Your task to perform on an android device: turn smart compose on in the gmail app Image 0: 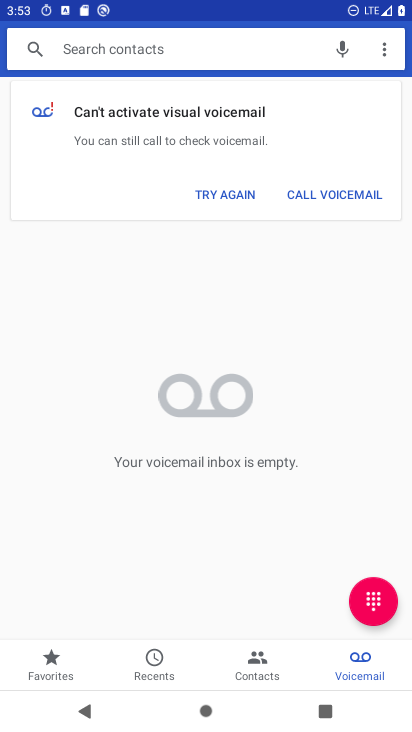
Step 0: press home button
Your task to perform on an android device: turn smart compose on in the gmail app Image 1: 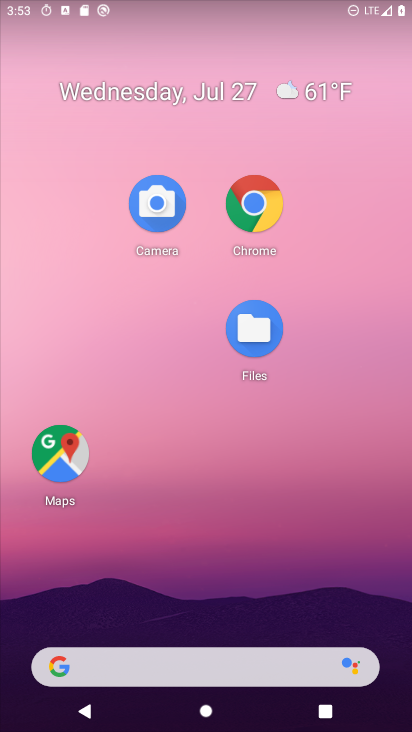
Step 1: drag from (207, 609) to (209, 192)
Your task to perform on an android device: turn smart compose on in the gmail app Image 2: 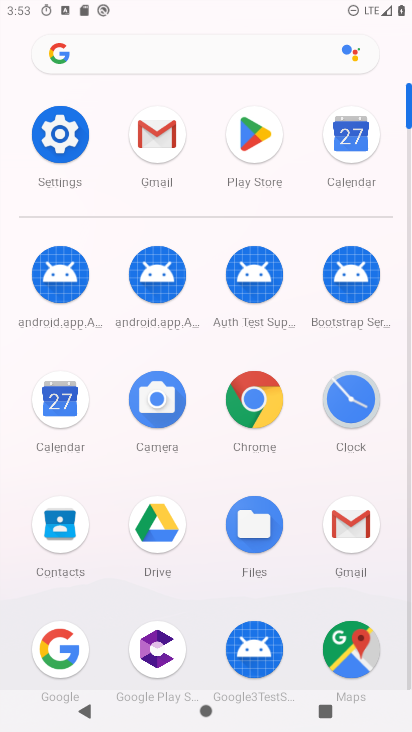
Step 2: click (160, 145)
Your task to perform on an android device: turn smart compose on in the gmail app Image 3: 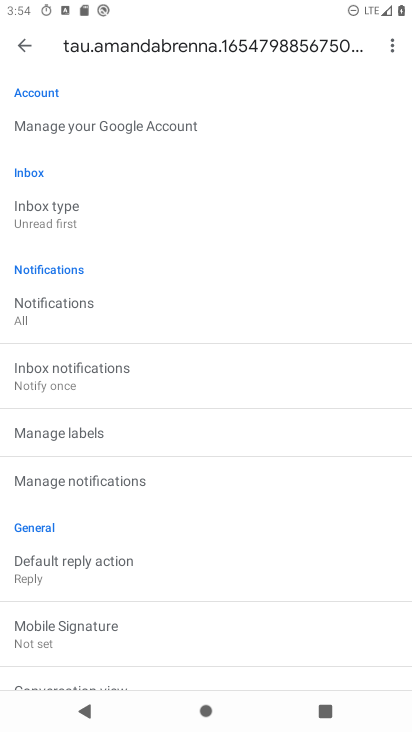
Step 3: task complete